Your task to perform on an android device: make emails show in primary in the gmail app Image 0: 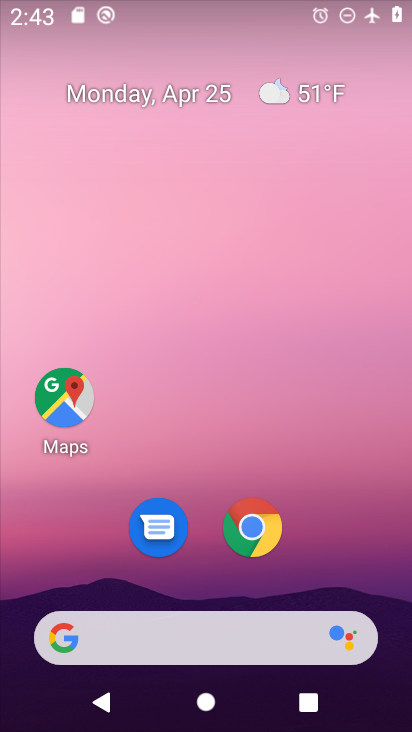
Step 0: drag from (331, 533) to (190, 17)
Your task to perform on an android device: make emails show in primary in the gmail app Image 1: 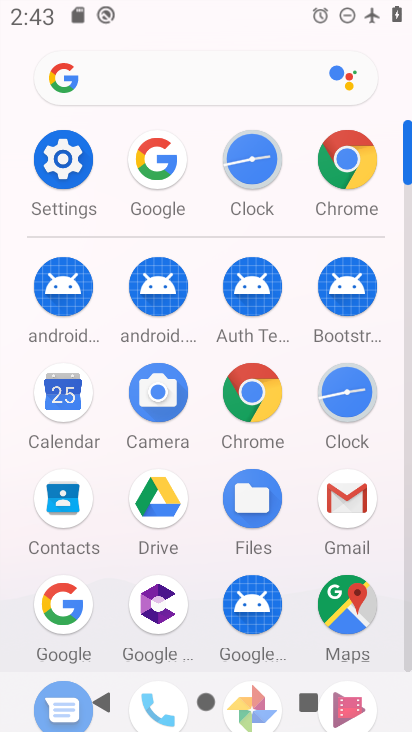
Step 1: drag from (9, 514) to (9, 249)
Your task to perform on an android device: make emails show in primary in the gmail app Image 2: 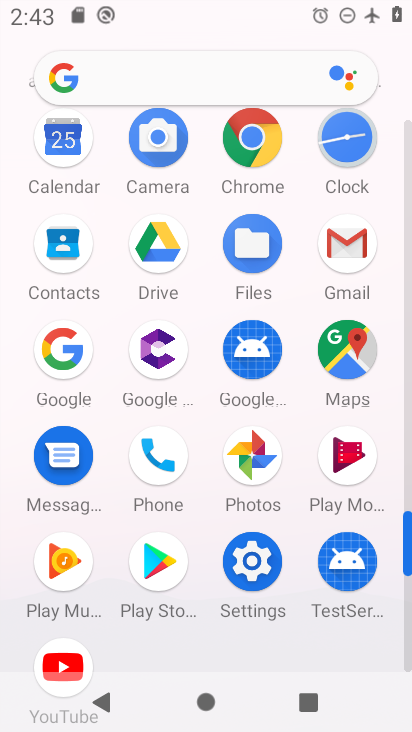
Step 2: click (340, 237)
Your task to perform on an android device: make emails show in primary in the gmail app Image 3: 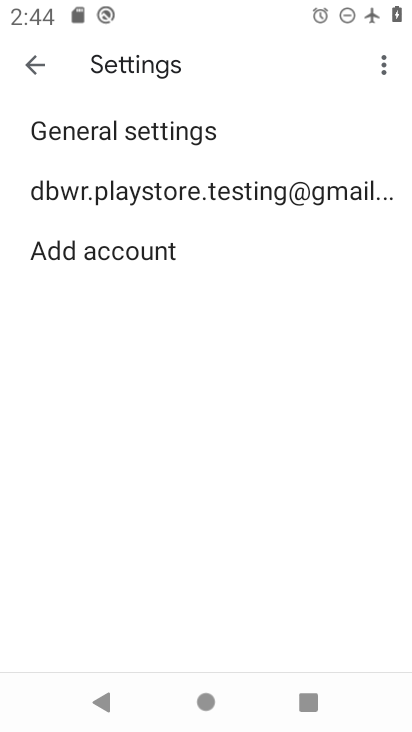
Step 3: click (186, 189)
Your task to perform on an android device: make emails show in primary in the gmail app Image 4: 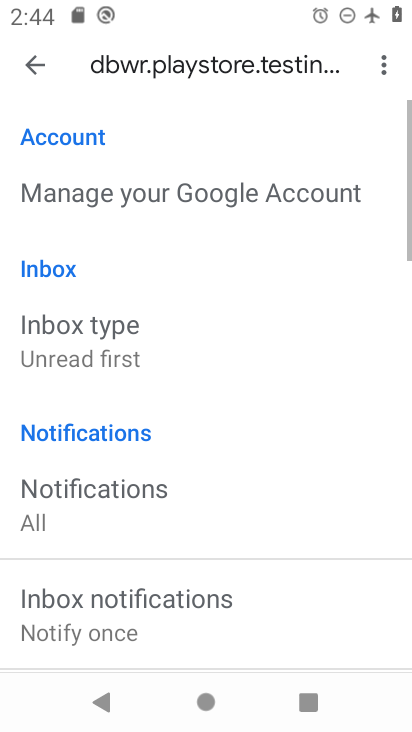
Step 4: drag from (211, 492) to (207, 147)
Your task to perform on an android device: make emails show in primary in the gmail app Image 5: 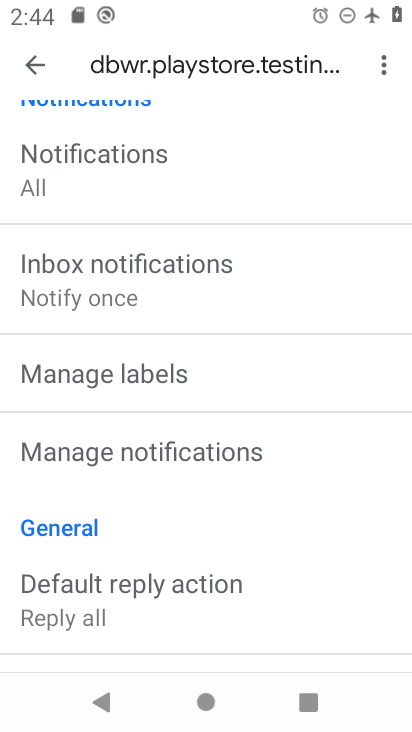
Step 5: drag from (181, 248) to (184, 363)
Your task to perform on an android device: make emails show in primary in the gmail app Image 6: 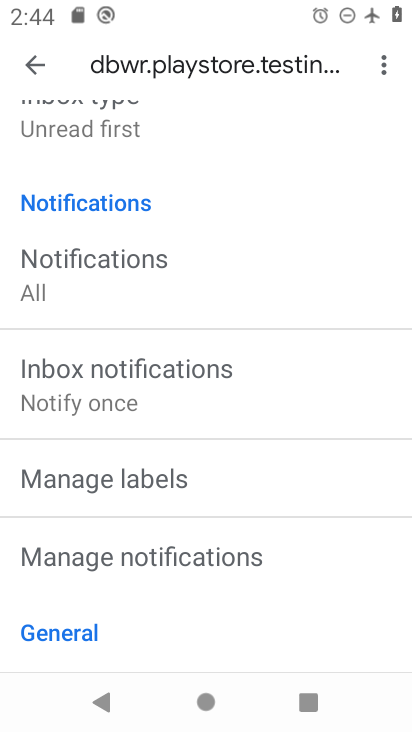
Step 6: click (137, 120)
Your task to perform on an android device: make emails show in primary in the gmail app Image 7: 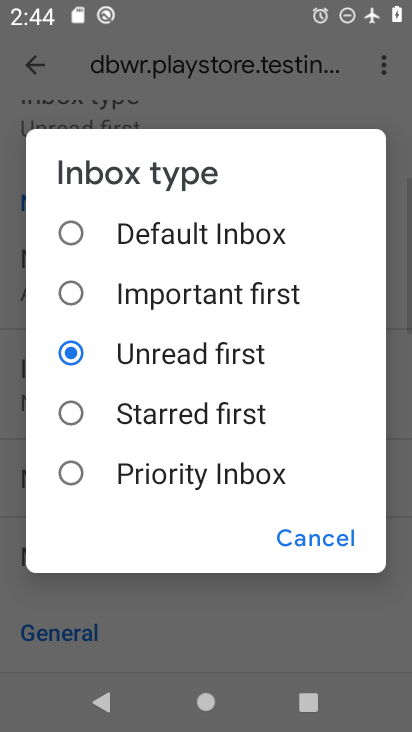
Step 7: click (174, 228)
Your task to perform on an android device: make emails show in primary in the gmail app Image 8: 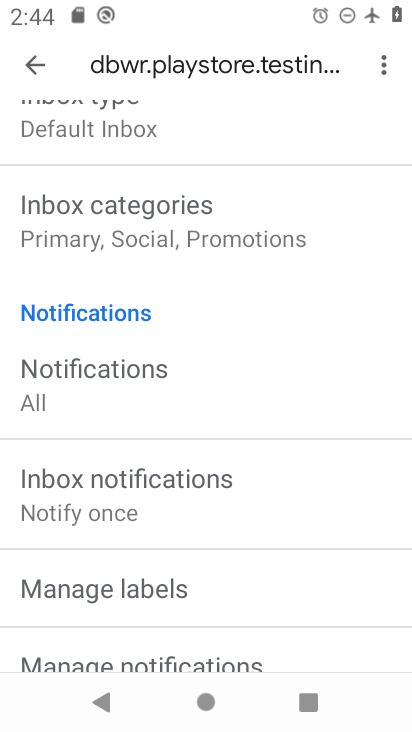
Step 8: click (177, 229)
Your task to perform on an android device: make emails show in primary in the gmail app Image 9: 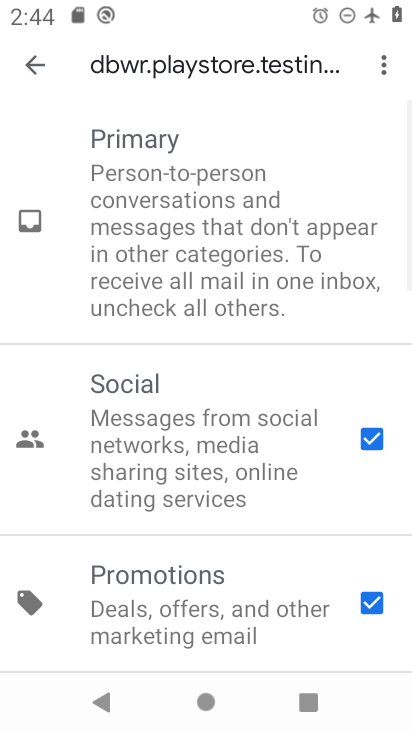
Step 9: click (372, 436)
Your task to perform on an android device: make emails show in primary in the gmail app Image 10: 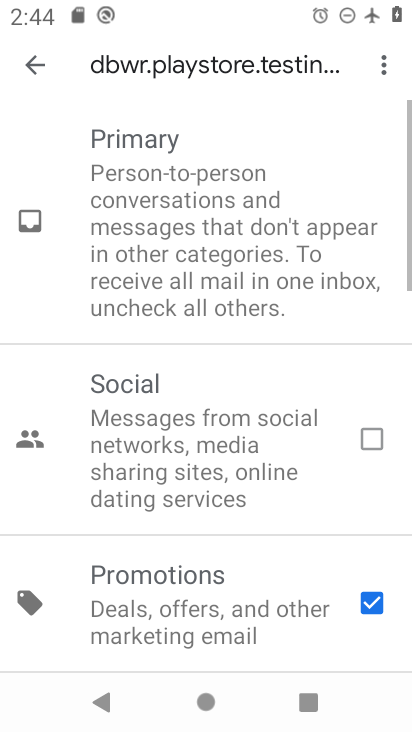
Step 10: click (371, 611)
Your task to perform on an android device: make emails show in primary in the gmail app Image 11: 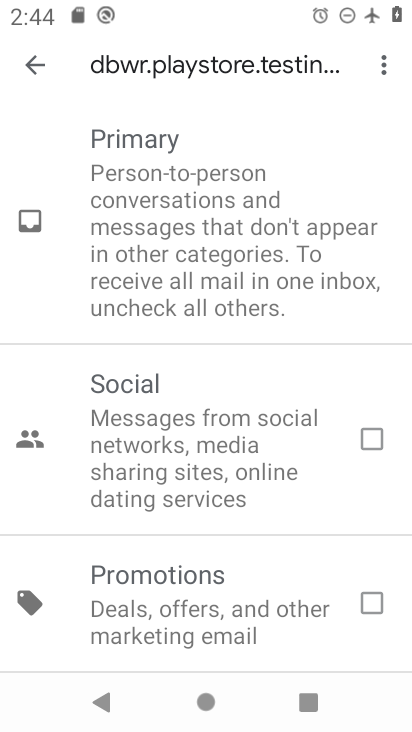
Step 11: click (36, 74)
Your task to perform on an android device: make emails show in primary in the gmail app Image 12: 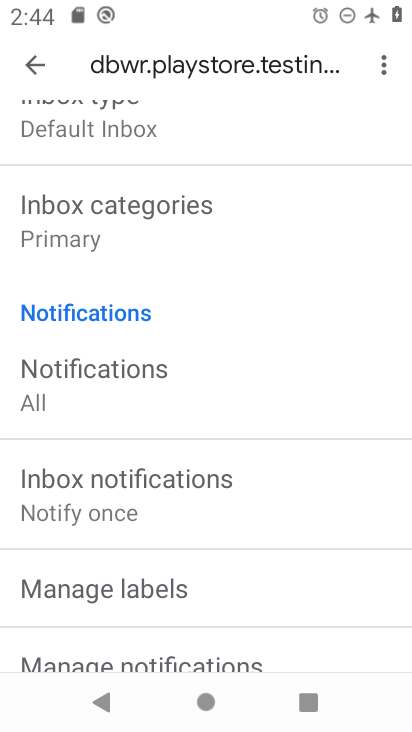
Step 12: task complete